Your task to perform on an android device: clear all cookies in the chrome app Image 0: 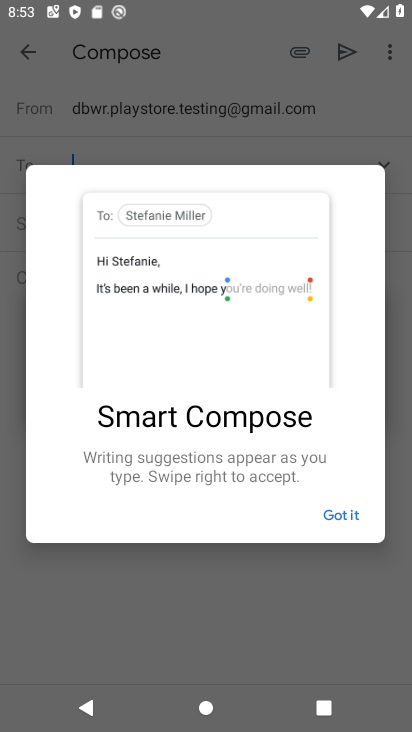
Step 0: press home button
Your task to perform on an android device: clear all cookies in the chrome app Image 1: 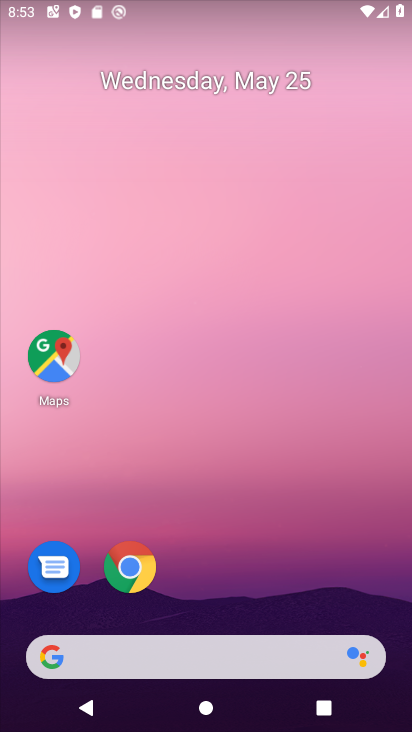
Step 1: click (146, 559)
Your task to perform on an android device: clear all cookies in the chrome app Image 2: 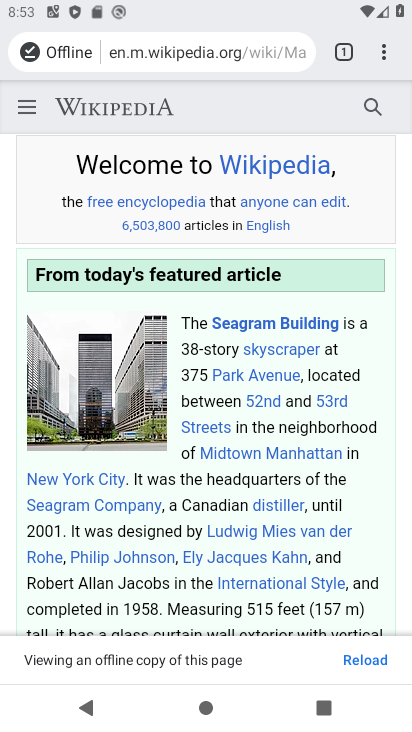
Step 2: click (386, 47)
Your task to perform on an android device: clear all cookies in the chrome app Image 3: 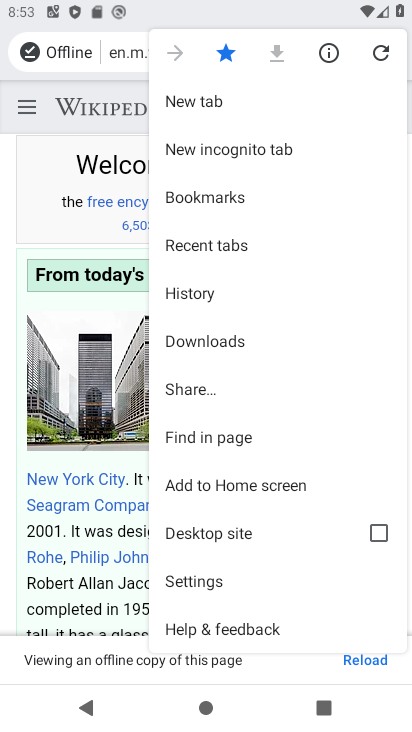
Step 3: click (220, 287)
Your task to perform on an android device: clear all cookies in the chrome app Image 4: 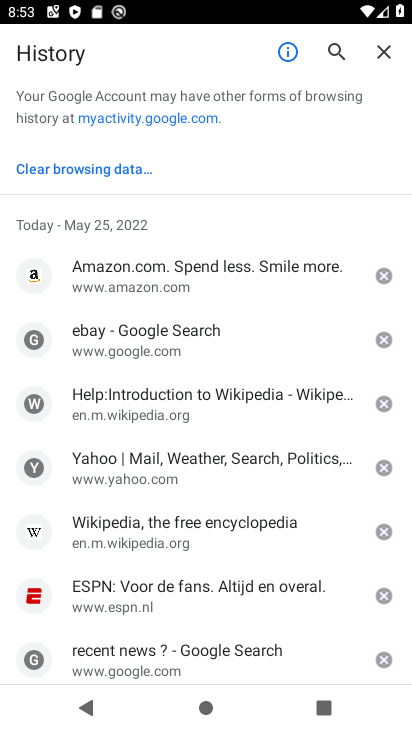
Step 4: click (111, 166)
Your task to perform on an android device: clear all cookies in the chrome app Image 5: 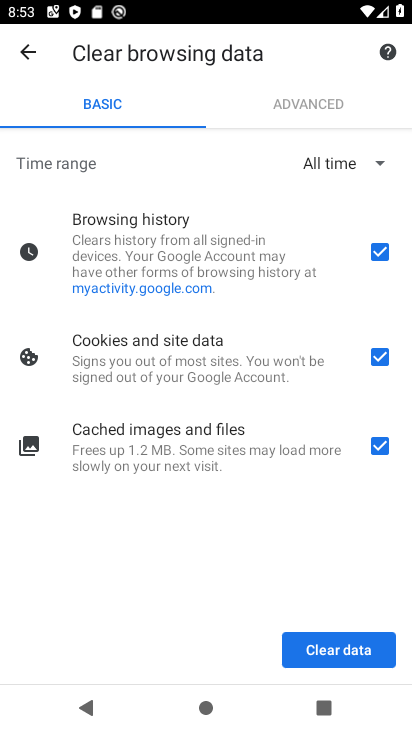
Step 5: click (372, 246)
Your task to perform on an android device: clear all cookies in the chrome app Image 6: 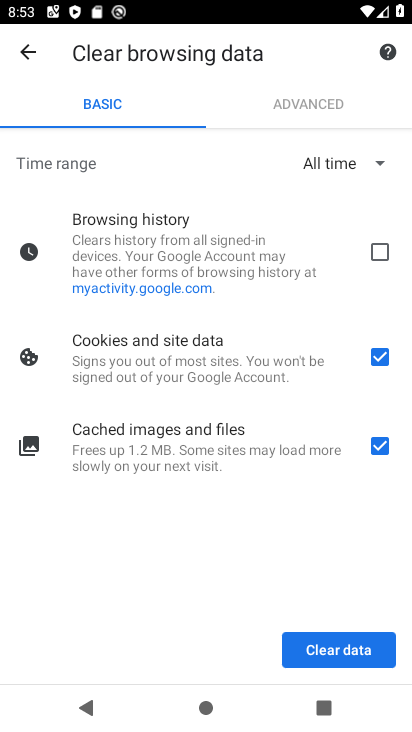
Step 6: click (375, 437)
Your task to perform on an android device: clear all cookies in the chrome app Image 7: 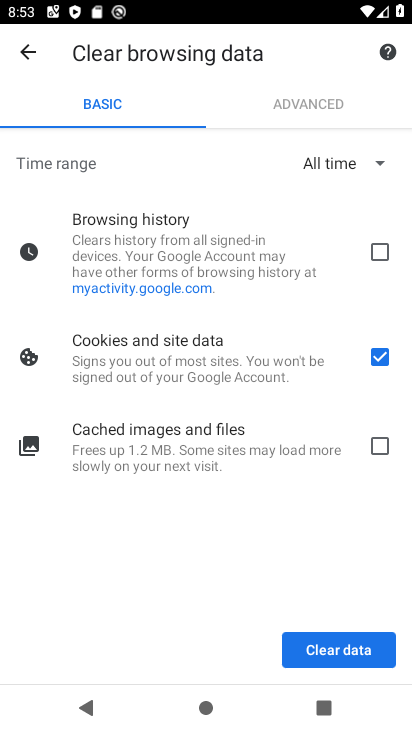
Step 7: click (351, 645)
Your task to perform on an android device: clear all cookies in the chrome app Image 8: 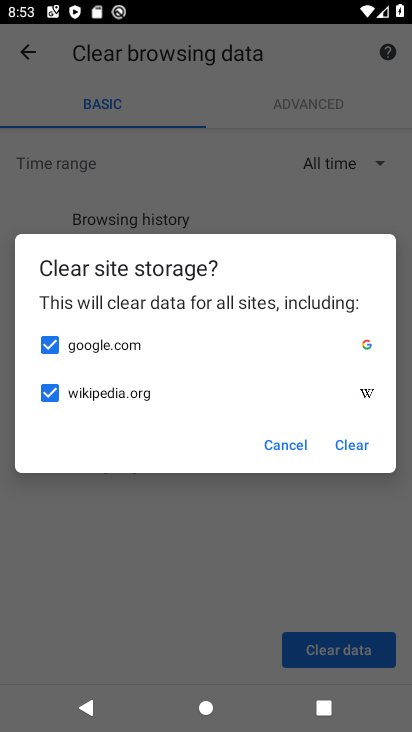
Step 8: click (359, 449)
Your task to perform on an android device: clear all cookies in the chrome app Image 9: 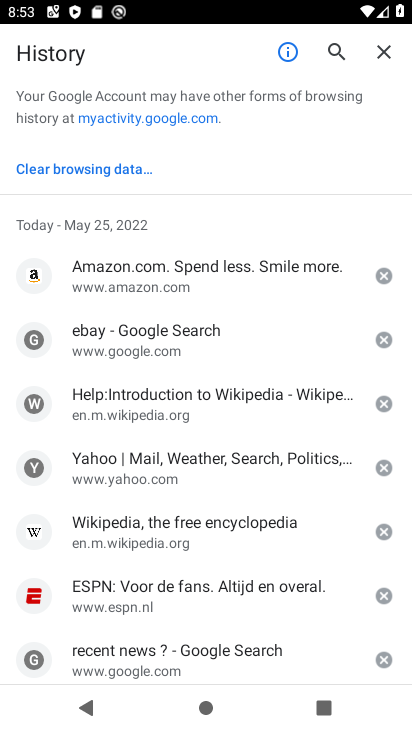
Step 9: task complete